Your task to perform on an android device: Open eBay Image 0: 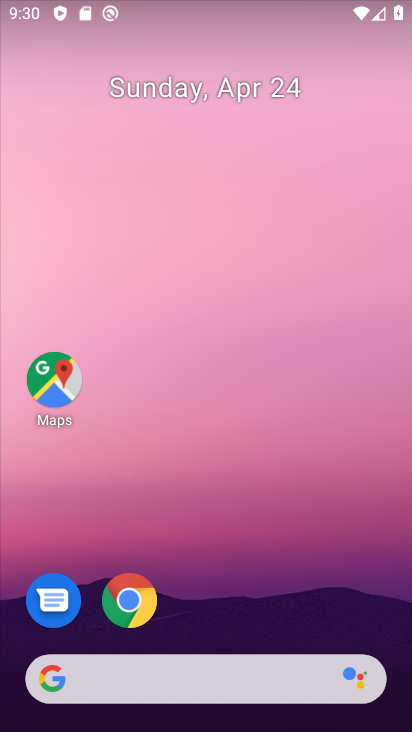
Step 0: click (134, 600)
Your task to perform on an android device: Open eBay Image 1: 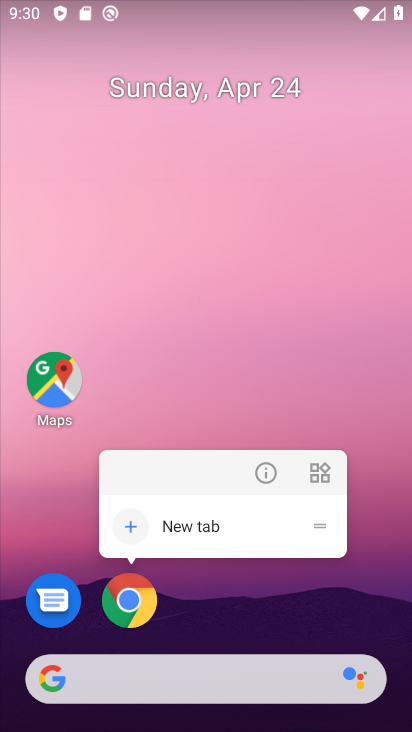
Step 1: click (261, 470)
Your task to perform on an android device: Open eBay Image 2: 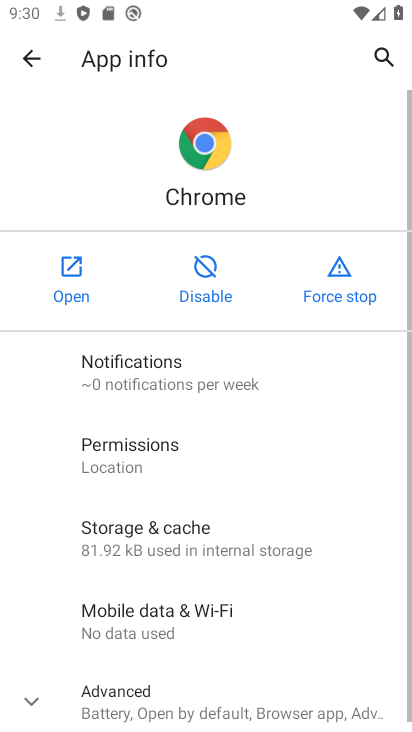
Step 2: click (74, 290)
Your task to perform on an android device: Open eBay Image 3: 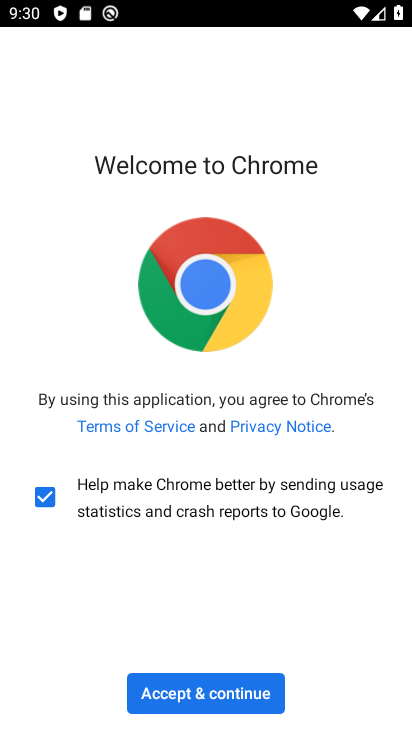
Step 3: click (241, 683)
Your task to perform on an android device: Open eBay Image 4: 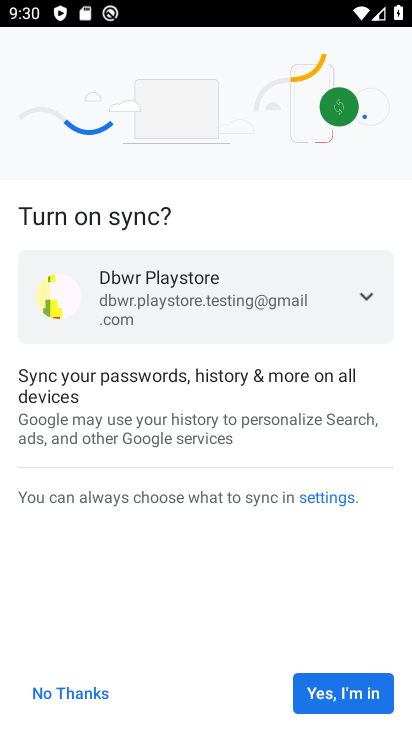
Step 4: click (342, 694)
Your task to perform on an android device: Open eBay Image 5: 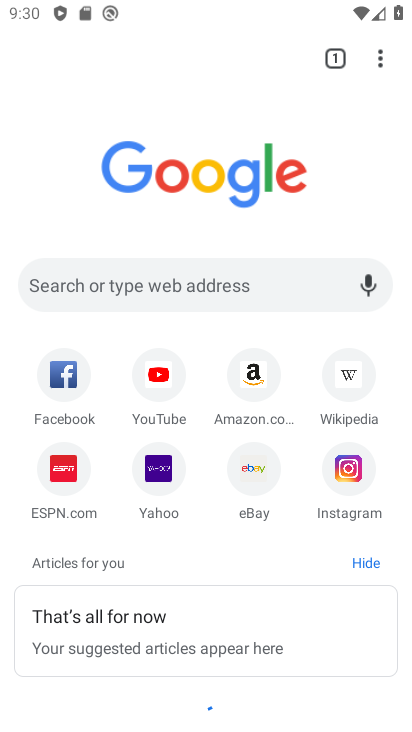
Step 5: click (254, 474)
Your task to perform on an android device: Open eBay Image 6: 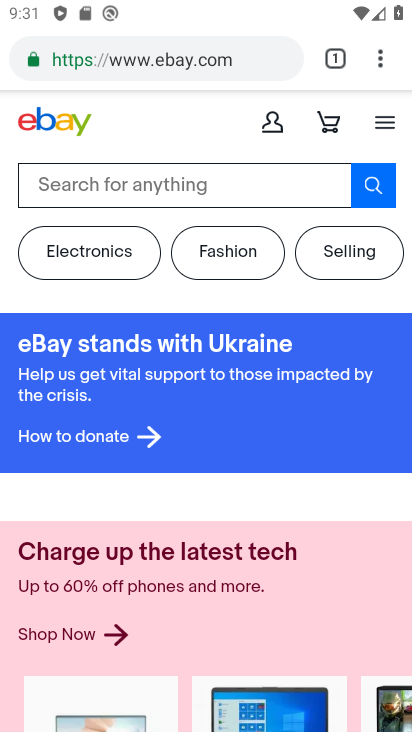
Step 6: task complete